Your task to perform on an android device: Is it going to rain today? Image 0: 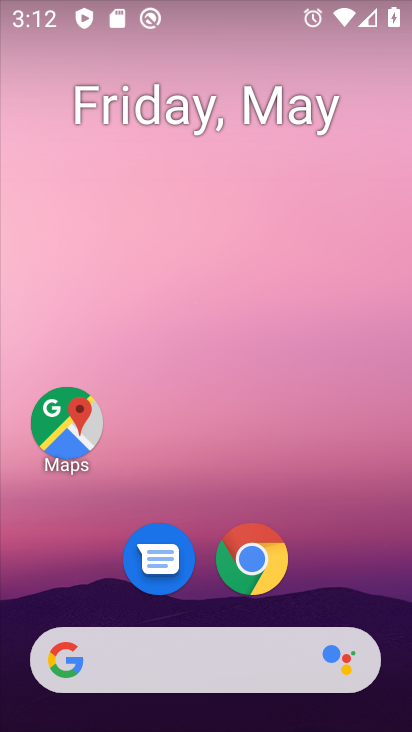
Step 0: click (370, 563)
Your task to perform on an android device: Is it going to rain today? Image 1: 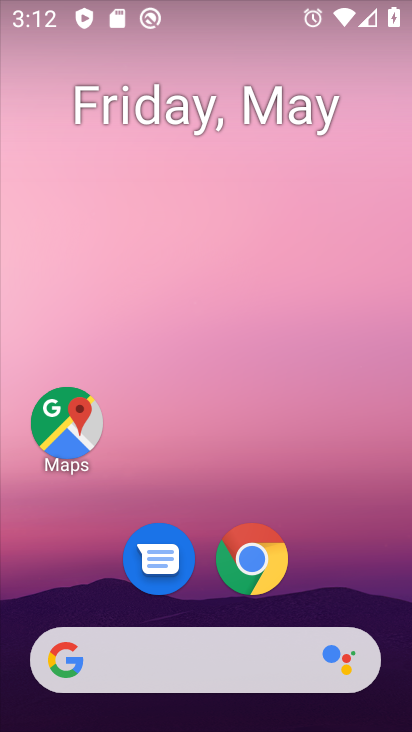
Step 1: click (222, 662)
Your task to perform on an android device: Is it going to rain today? Image 2: 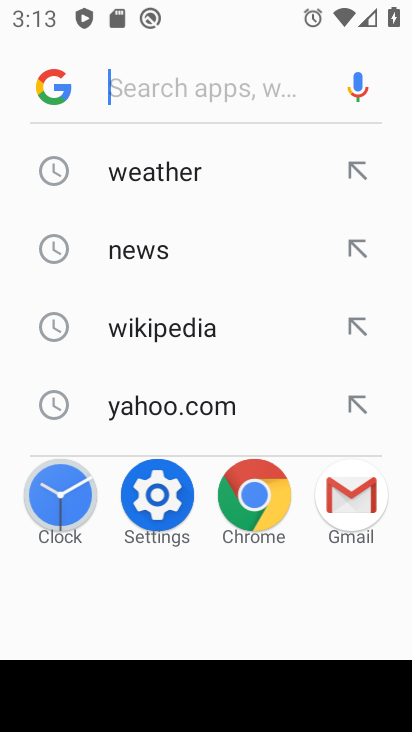
Step 2: click (195, 195)
Your task to perform on an android device: Is it going to rain today? Image 3: 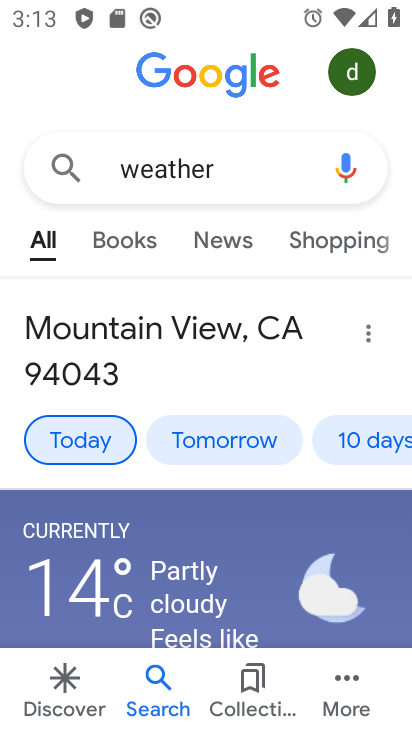
Step 3: task complete